Your task to perform on an android device: toggle priority inbox in the gmail app Image 0: 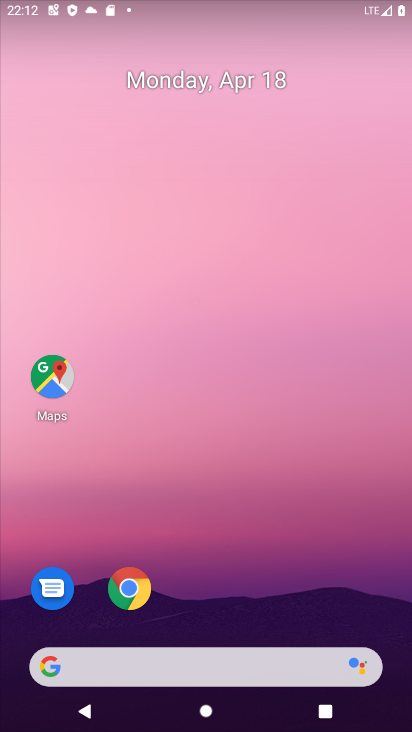
Step 0: drag from (389, 617) to (301, 54)
Your task to perform on an android device: toggle priority inbox in the gmail app Image 1: 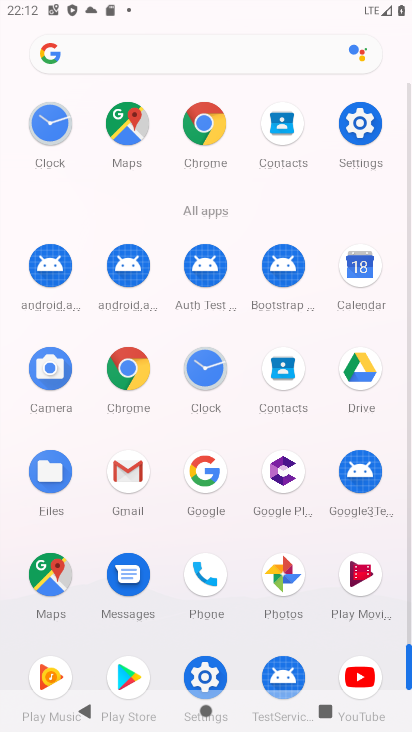
Step 1: click (126, 467)
Your task to perform on an android device: toggle priority inbox in the gmail app Image 2: 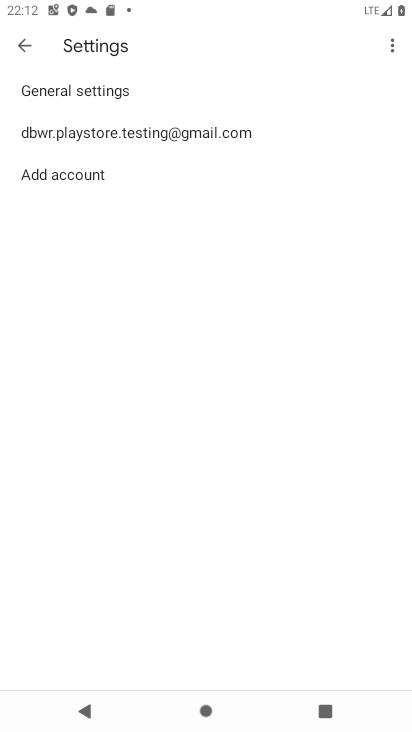
Step 2: click (135, 122)
Your task to perform on an android device: toggle priority inbox in the gmail app Image 3: 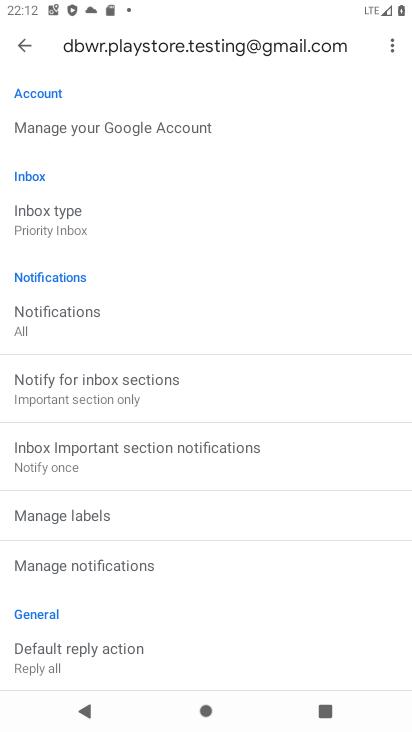
Step 3: click (44, 215)
Your task to perform on an android device: toggle priority inbox in the gmail app Image 4: 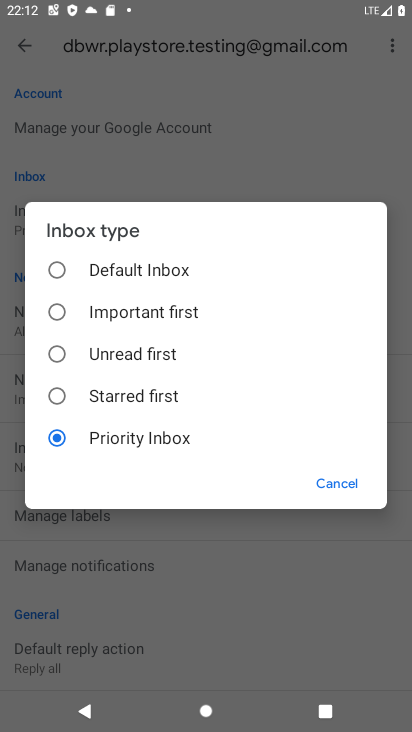
Step 4: click (54, 396)
Your task to perform on an android device: toggle priority inbox in the gmail app Image 5: 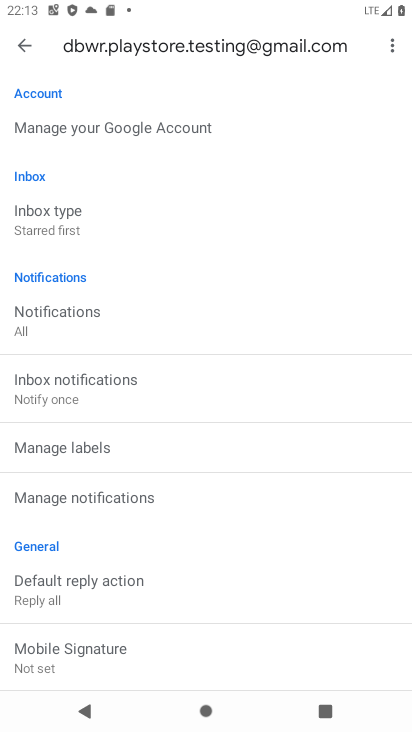
Step 5: task complete